Your task to perform on an android device: Show me popular videos on Youtube Image 0: 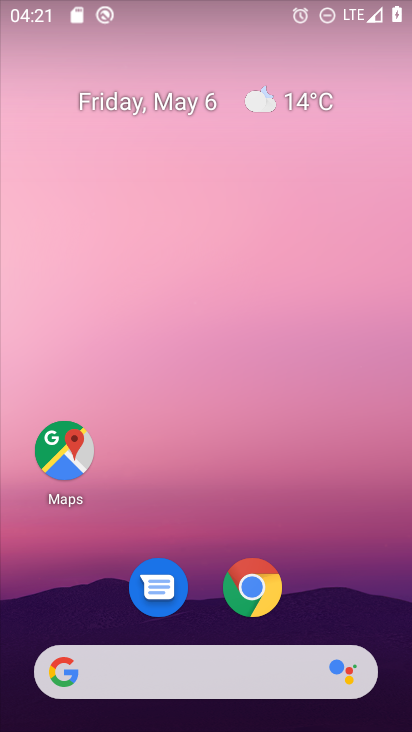
Step 0: drag from (324, 564) to (181, 67)
Your task to perform on an android device: Show me popular videos on Youtube Image 1: 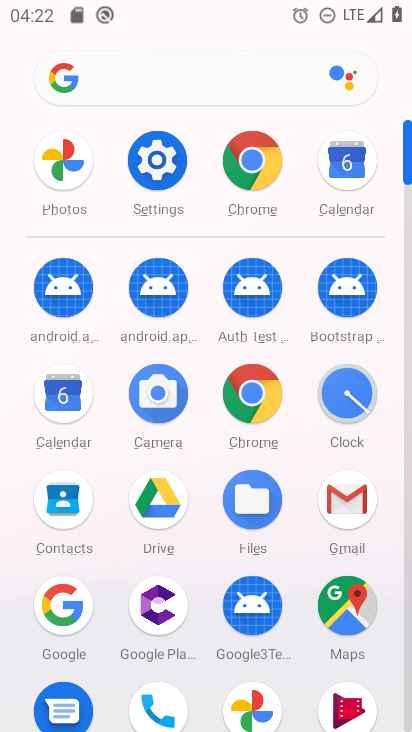
Step 1: drag from (302, 668) to (273, 279)
Your task to perform on an android device: Show me popular videos on Youtube Image 2: 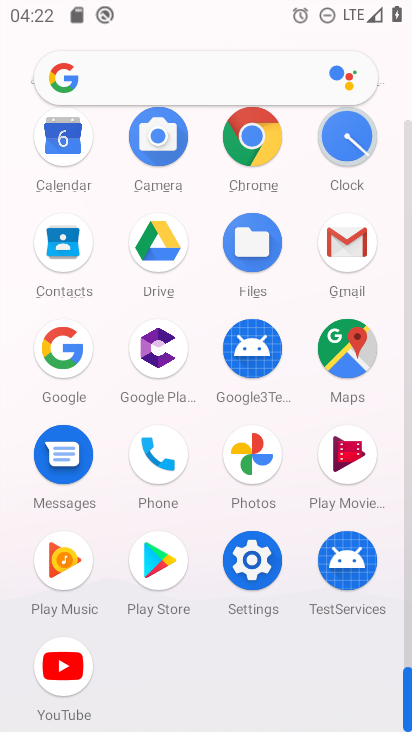
Step 2: click (67, 657)
Your task to perform on an android device: Show me popular videos on Youtube Image 3: 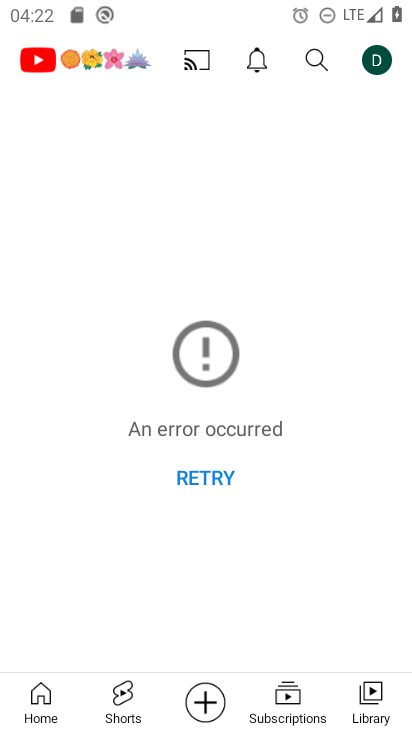
Step 3: click (42, 704)
Your task to perform on an android device: Show me popular videos on Youtube Image 4: 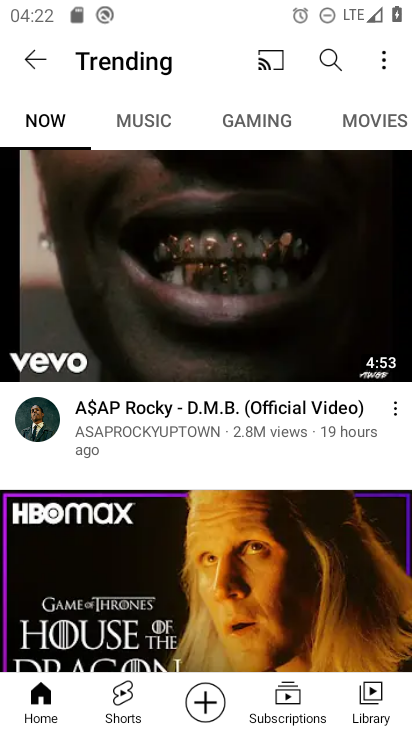
Step 4: task complete